Your task to perform on an android device: move an email to a new category in the gmail app Image 0: 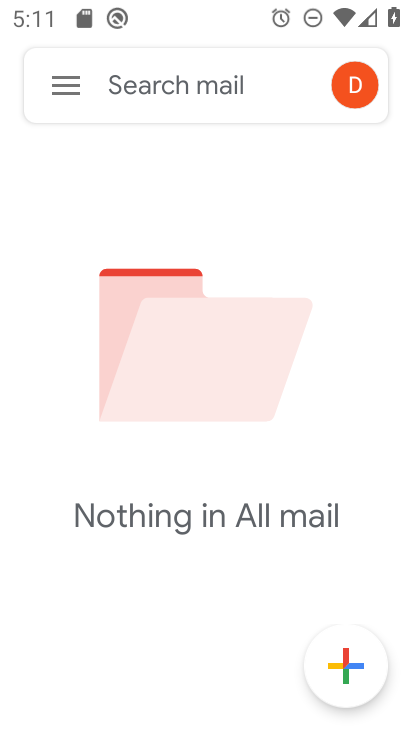
Step 0: click (50, 87)
Your task to perform on an android device: move an email to a new category in the gmail app Image 1: 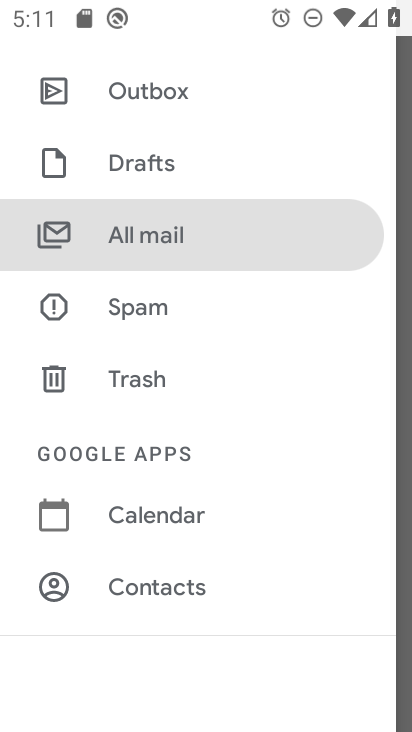
Step 1: task complete